Your task to perform on an android device: turn notification dots on Image 0: 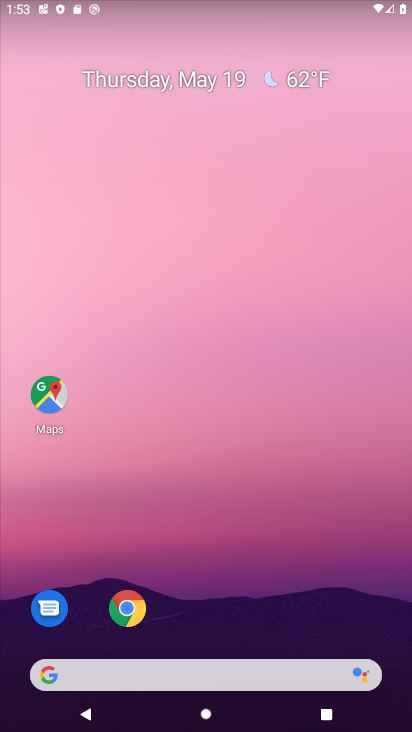
Step 0: drag from (292, 608) to (220, 240)
Your task to perform on an android device: turn notification dots on Image 1: 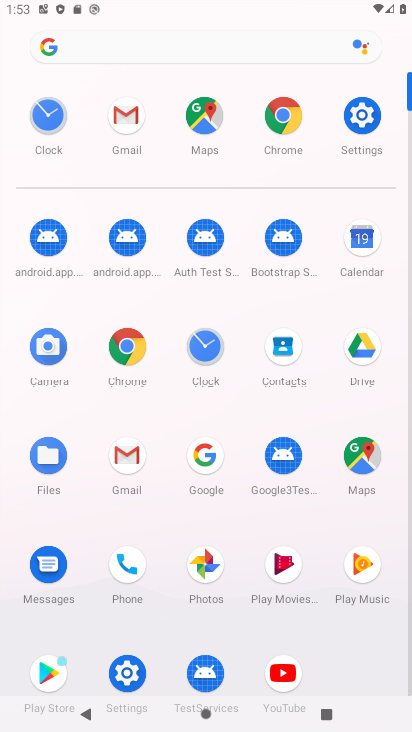
Step 1: click (357, 117)
Your task to perform on an android device: turn notification dots on Image 2: 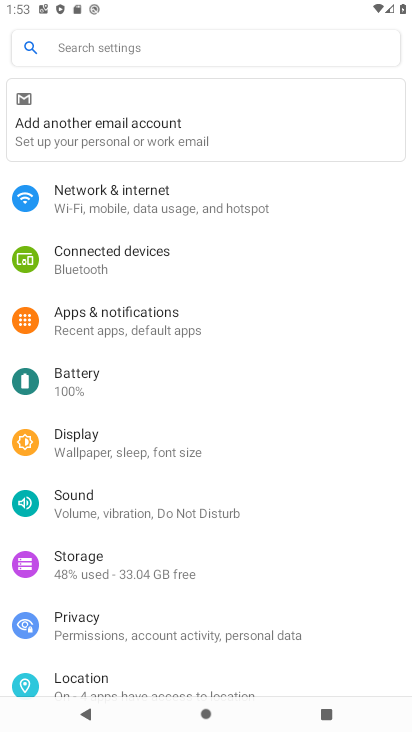
Step 2: click (246, 320)
Your task to perform on an android device: turn notification dots on Image 3: 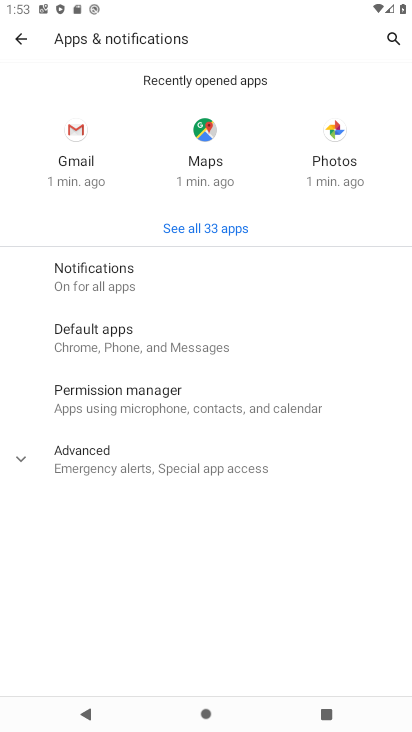
Step 3: click (141, 272)
Your task to perform on an android device: turn notification dots on Image 4: 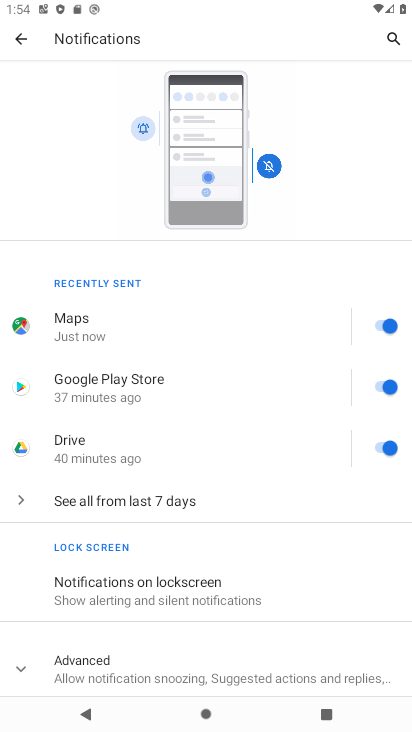
Step 4: click (204, 647)
Your task to perform on an android device: turn notification dots on Image 5: 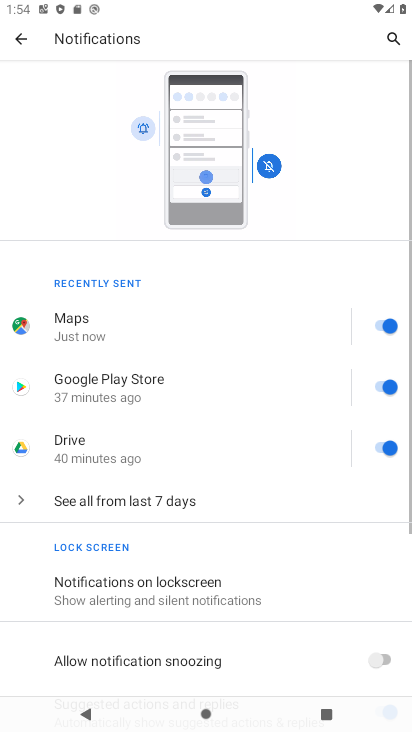
Step 5: drag from (279, 622) to (232, 307)
Your task to perform on an android device: turn notification dots on Image 6: 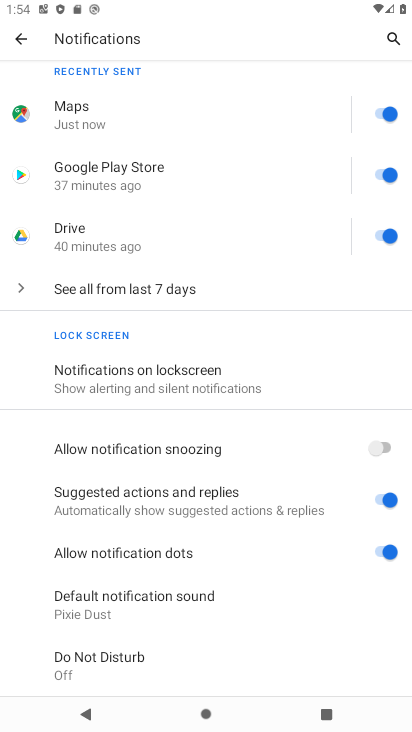
Step 6: click (353, 548)
Your task to perform on an android device: turn notification dots on Image 7: 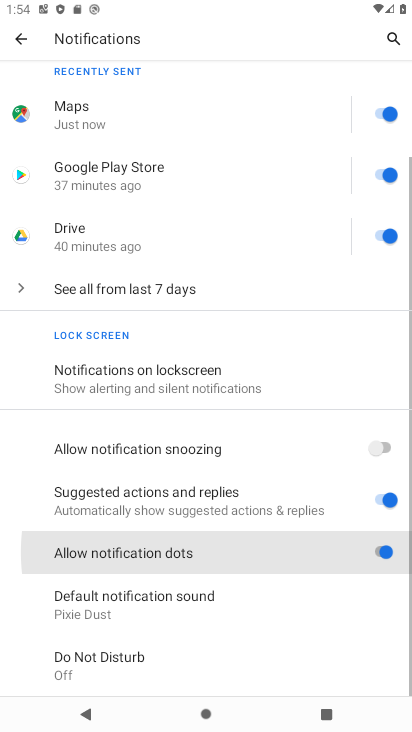
Step 7: click (353, 548)
Your task to perform on an android device: turn notification dots on Image 8: 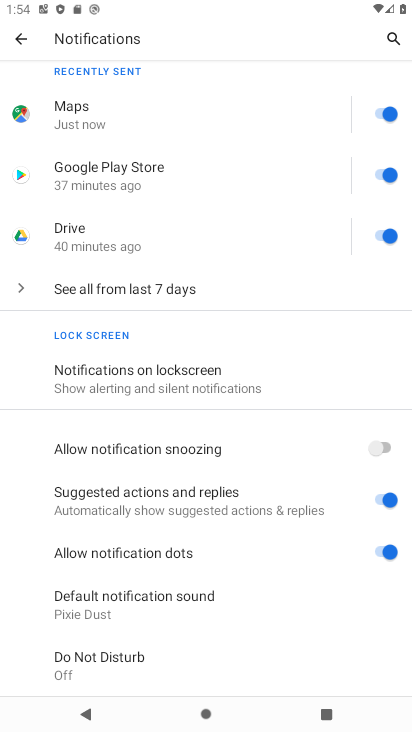
Step 8: task complete